Your task to perform on an android device: toggle improve location accuracy Image 0: 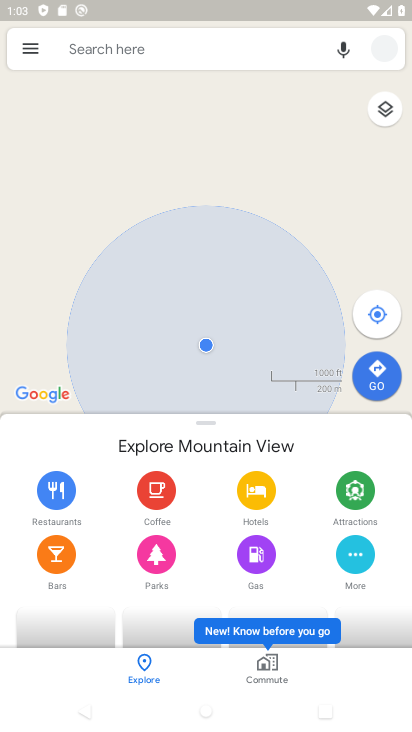
Step 0: press home button
Your task to perform on an android device: toggle improve location accuracy Image 1: 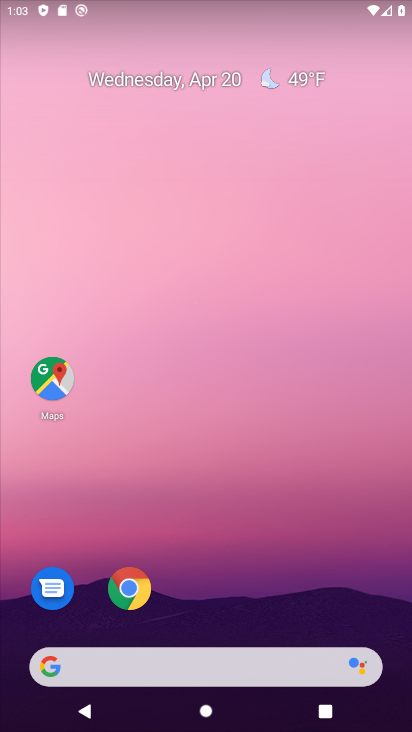
Step 1: drag from (136, 660) to (274, 117)
Your task to perform on an android device: toggle improve location accuracy Image 2: 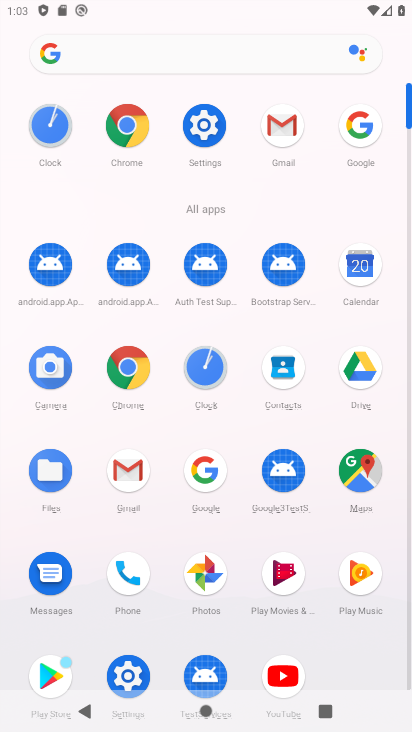
Step 2: click (213, 125)
Your task to perform on an android device: toggle improve location accuracy Image 3: 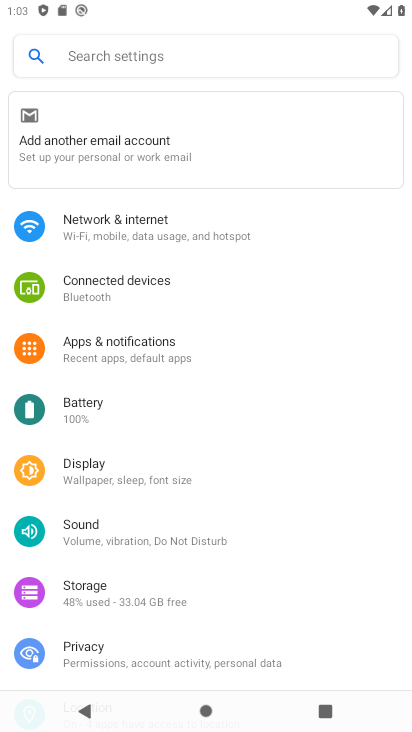
Step 3: drag from (171, 585) to (277, 313)
Your task to perform on an android device: toggle improve location accuracy Image 4: 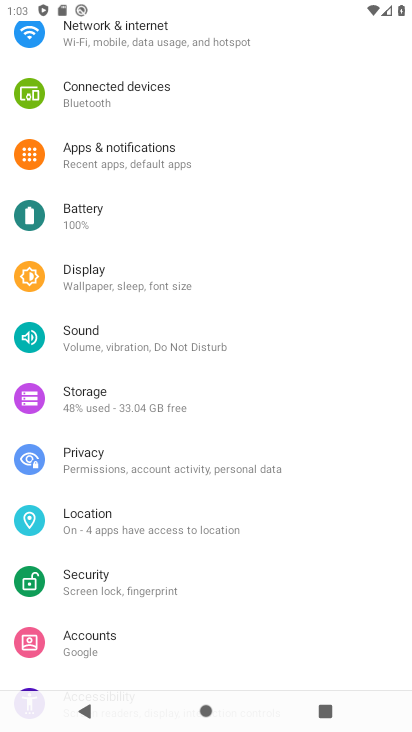
Step 4: click (85, 520)
Your task to perform on an android device: toggle improve location accuracy Image 5: 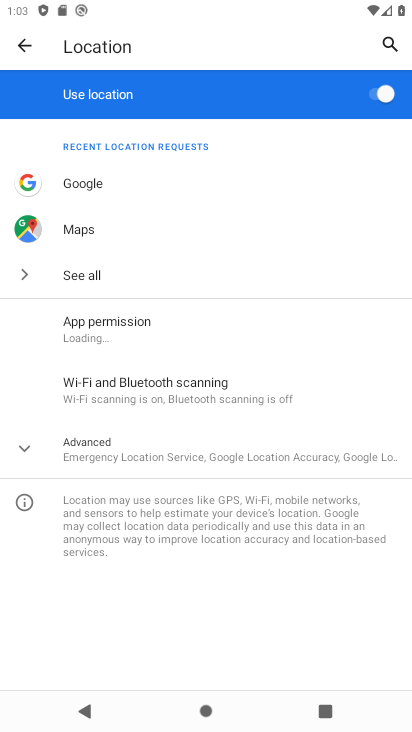
Step 5: click (96, 443)
Your task to perform on an android device: toggle improve location accuracy Image 6: 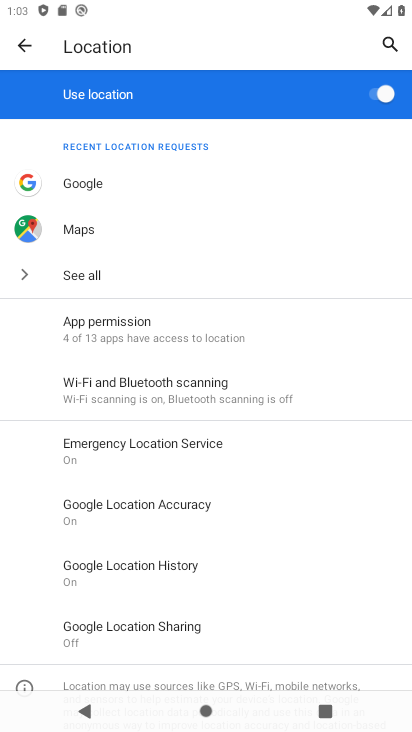
Step 6: click (170, 502)
Your task to perform on an android device: toggle improve location accuracy Image 7: 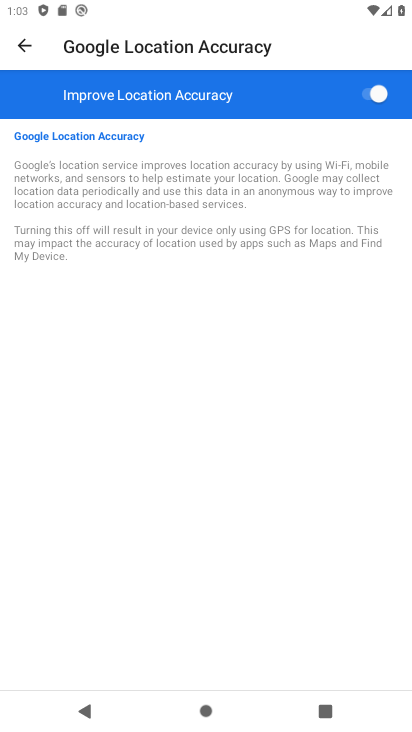
Step 7: click (364, 95)
Your task to perform on an android device: toggle improve location accuracy Image 8: 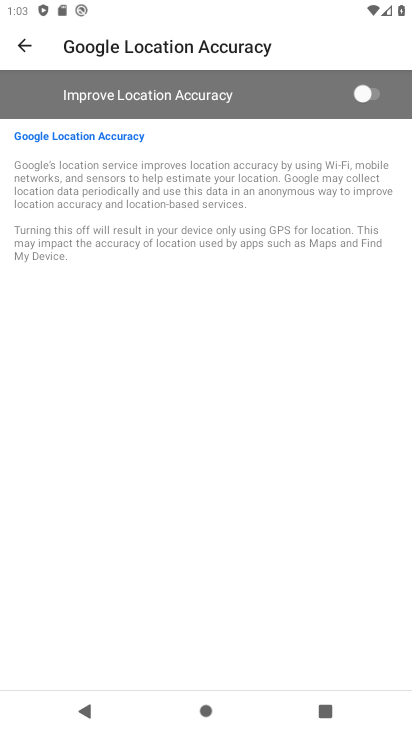
Step 8: task complete